Your task to perform on an android device: Open the downloads Image 0: 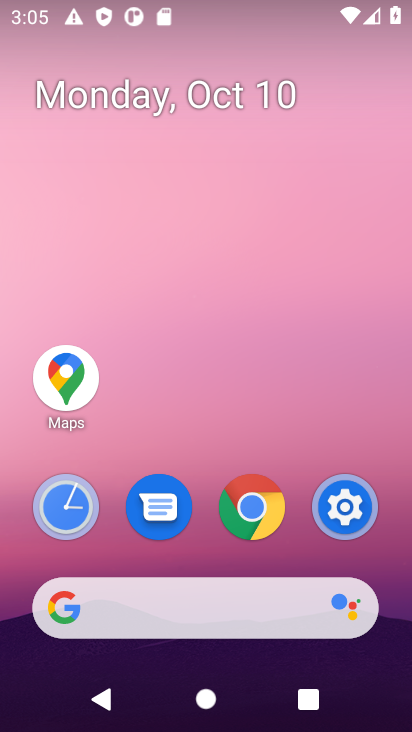
Step 0: drag from (226, 552) to (229, 38)
Your task to perform on an android device: Open the downloads Image 1: 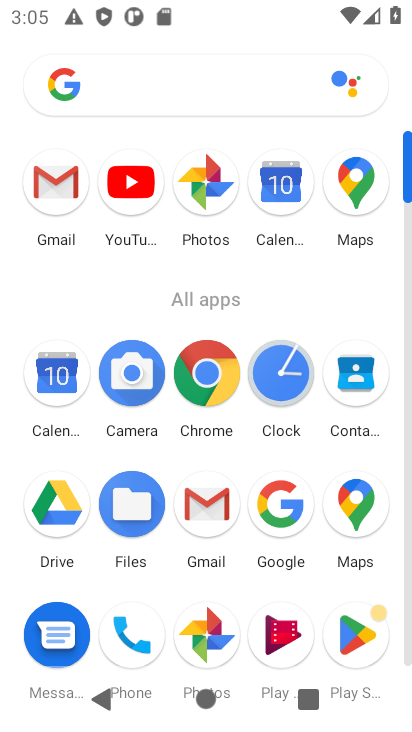
Step 1: task complete